Your task to perform on an android device: Set the phone to "Do not disturb". Image 0: 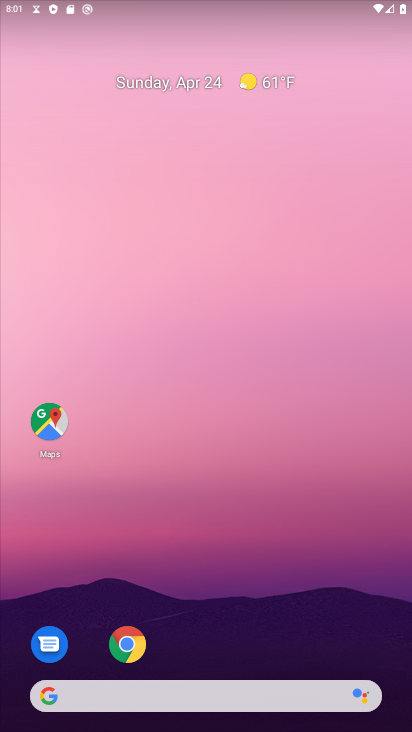
Step 0: drag from (200, 700) to (0, 380)
Your task to perform on an android device: Set the phone to "Do not disturb". Image 1: 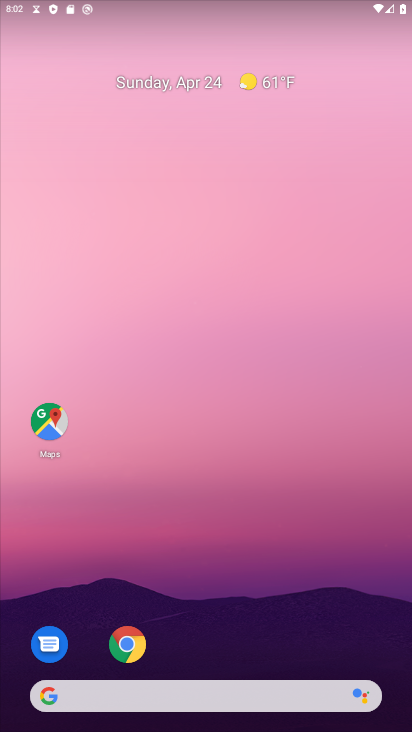
Step 1: click (122, 689)
Your task to perform on an android device: Set the phone to "Do not disturb". Image 2: 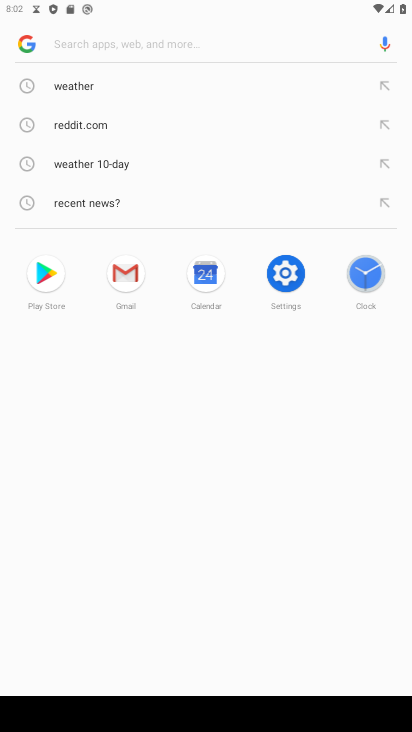
Step 2: click (301, 277)
Your task to perform on an android device: Set the phone to "Do not disturb". Image 3: 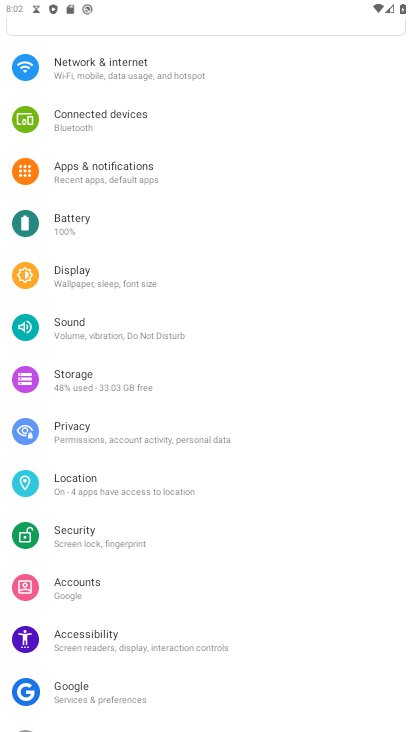
Step 3: click (119, 327)
Your task to perform on an android device: Set the phone to "Do not disturb". Image 4: 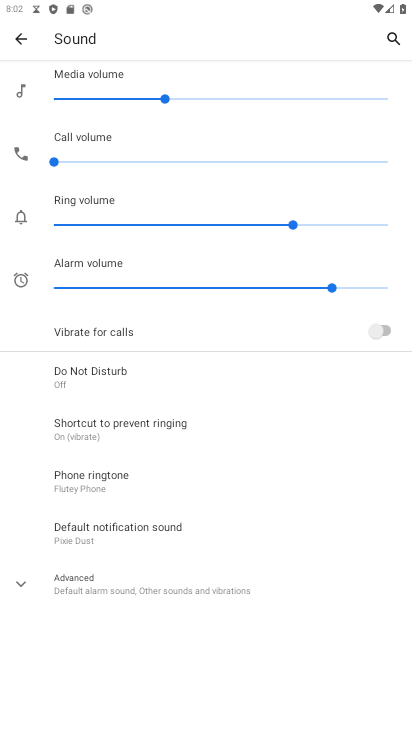
Step 4: click (156, 384)
Your task to perform on an android device: Set the phone to "Do not disturb". Image 5: 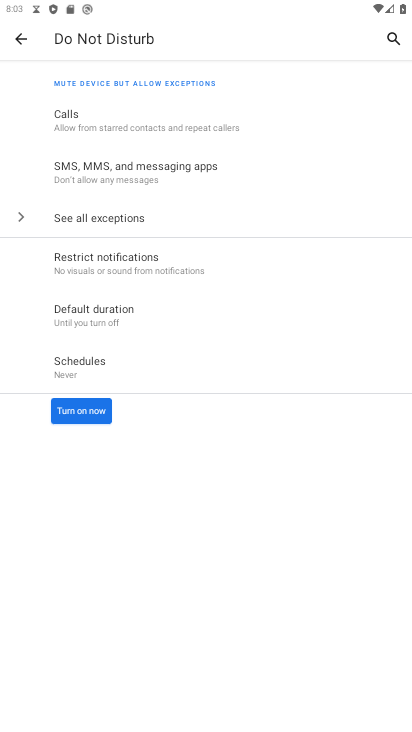
Step 5: click (93, 410)
Your task to perform on an android device: Set the phone to "Do not disturb". Image 6: 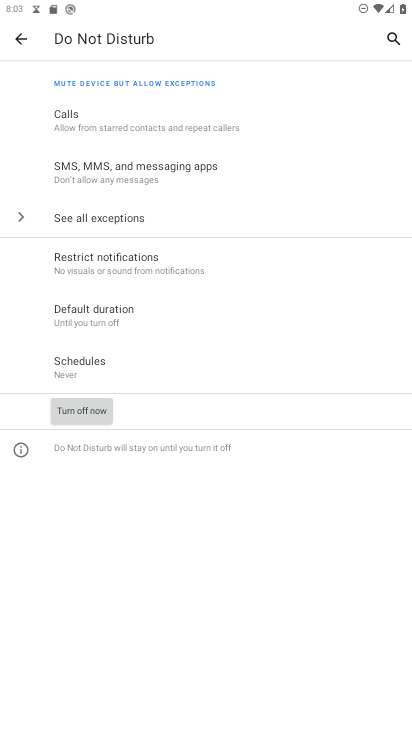
Step 6: task complete